Your task to perform on an android device: turn off wifi Image 0: 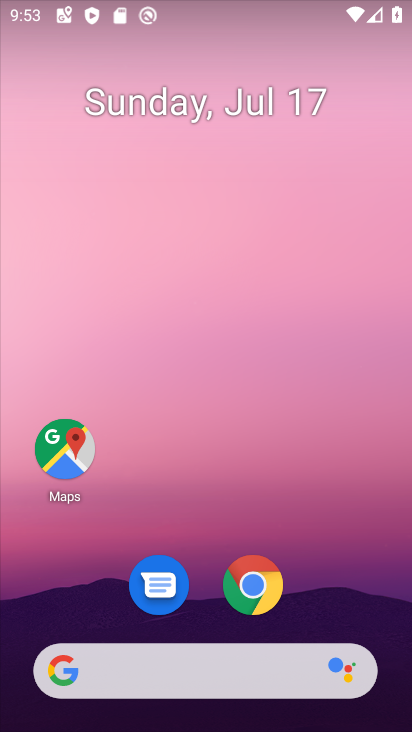
Step 0: drag from (369, 591) to (293, 74)
Your task to perform on an android device: turn off wifi Image 1: 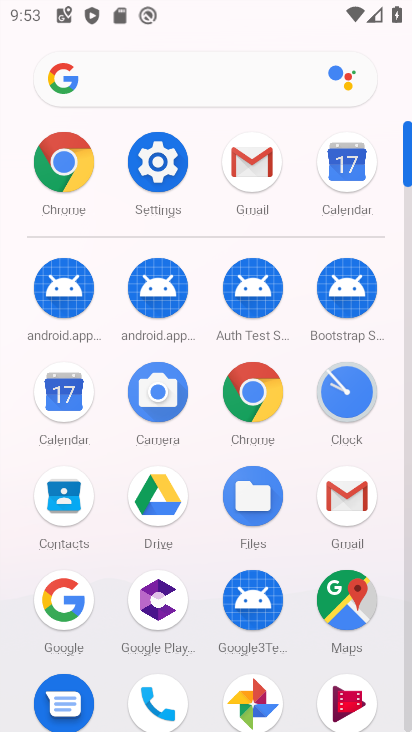
Step 1: click (165, 143)
Your task to perform on an android device: turn off wifi Image 2: 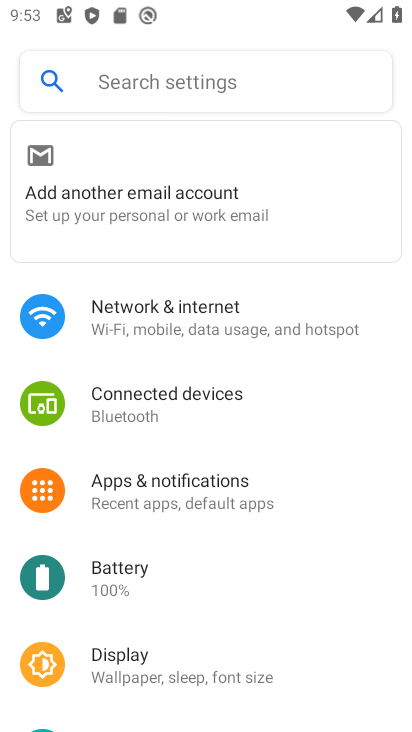
Step 2: click (198, 308)
Your task to perform on an android device: turn off wifi Image 3: 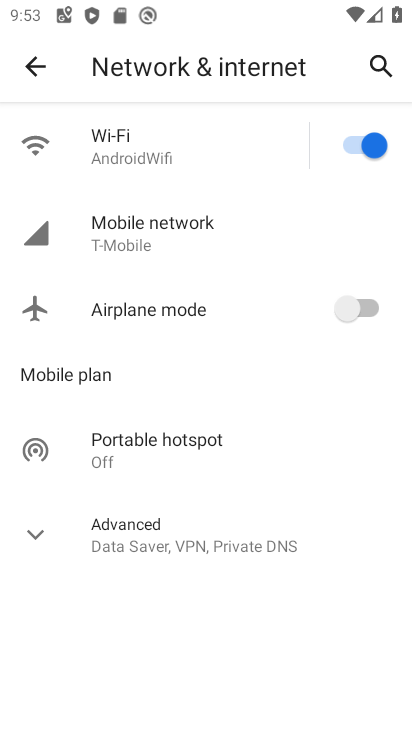
Step 3: click (357, 149)
Your task to perform on an android device: turn off wifi Image 4: 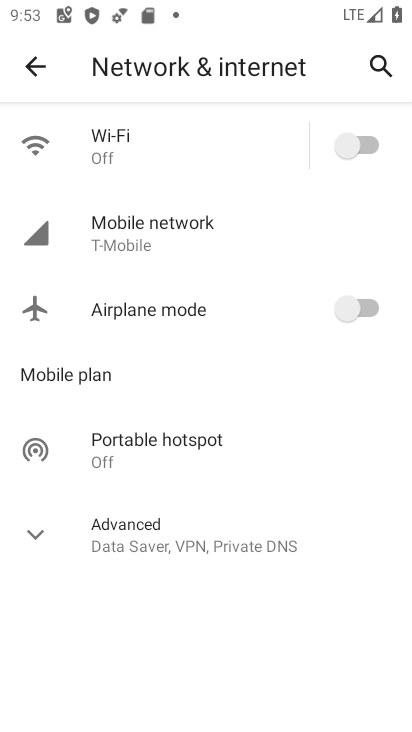
Step 4: task complete